Your task to perform on an android device: Open the map Image 0: 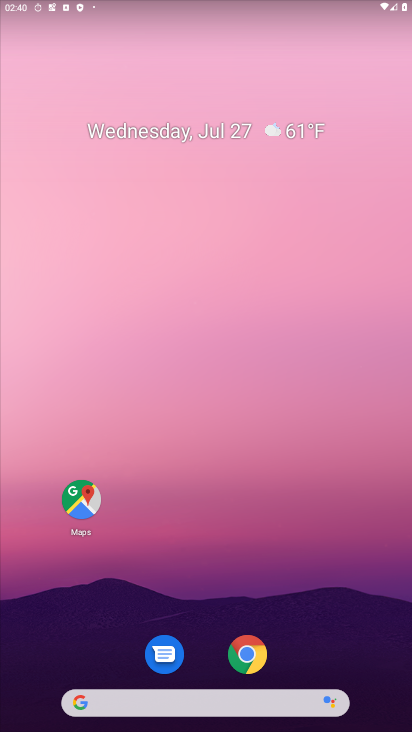
Step 0: drag from (239, 682) to (274, 43)
Your task to perform on an android device: Open the map Image 1: 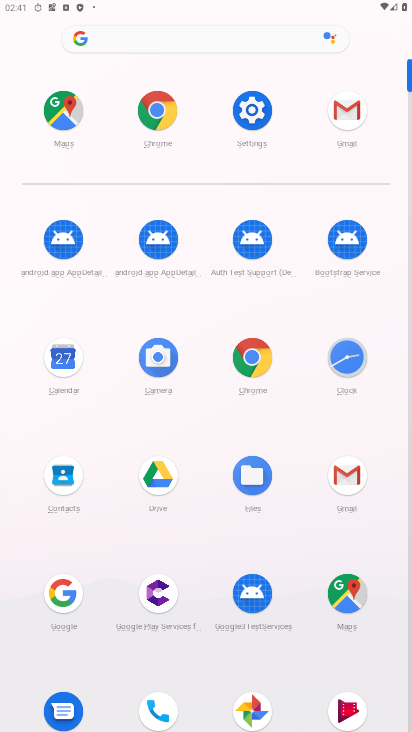
Step 1: click (346, 587)
Your task to perform on an android device: Open the map Image 2: 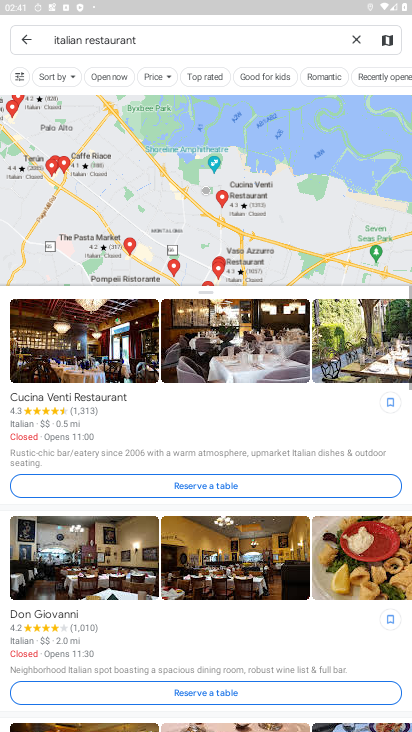
Step 2: task complete